Your task to perform on an android device: Install the Facebook app Image 0: 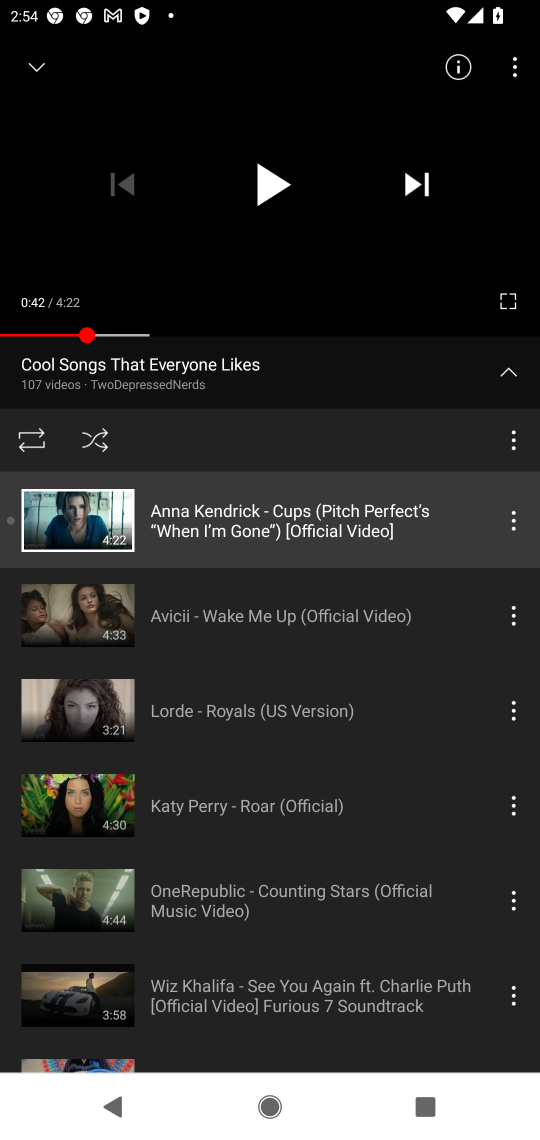
Step 0: press home button
Your task to perform on an android device: Install the Facebook app Image 1: 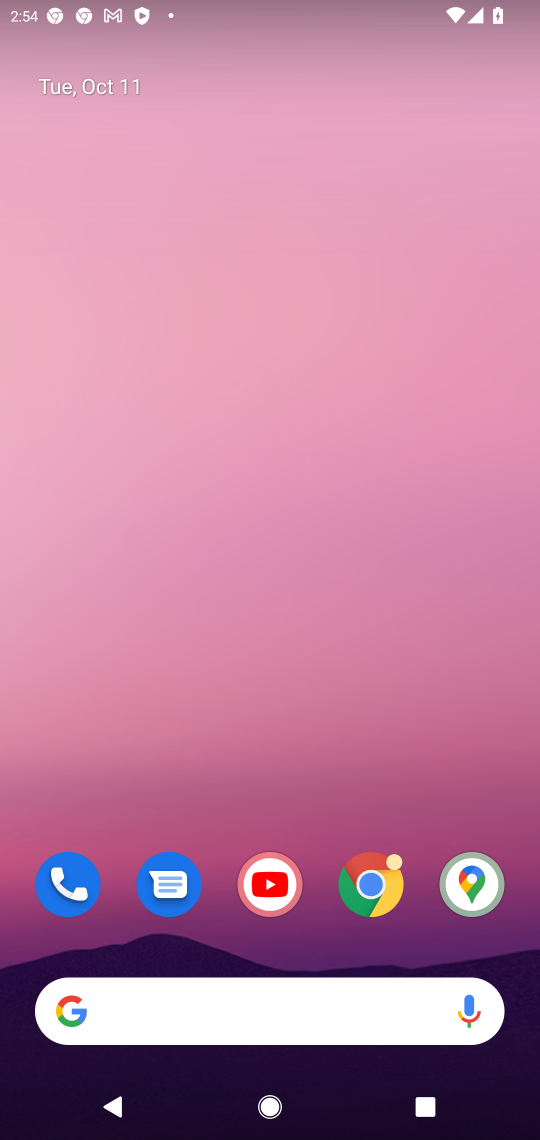
Step 1: drag from (292, 1023) to (390, 333)
Your task to perform on an android device: Install the Facebook app Image 2: 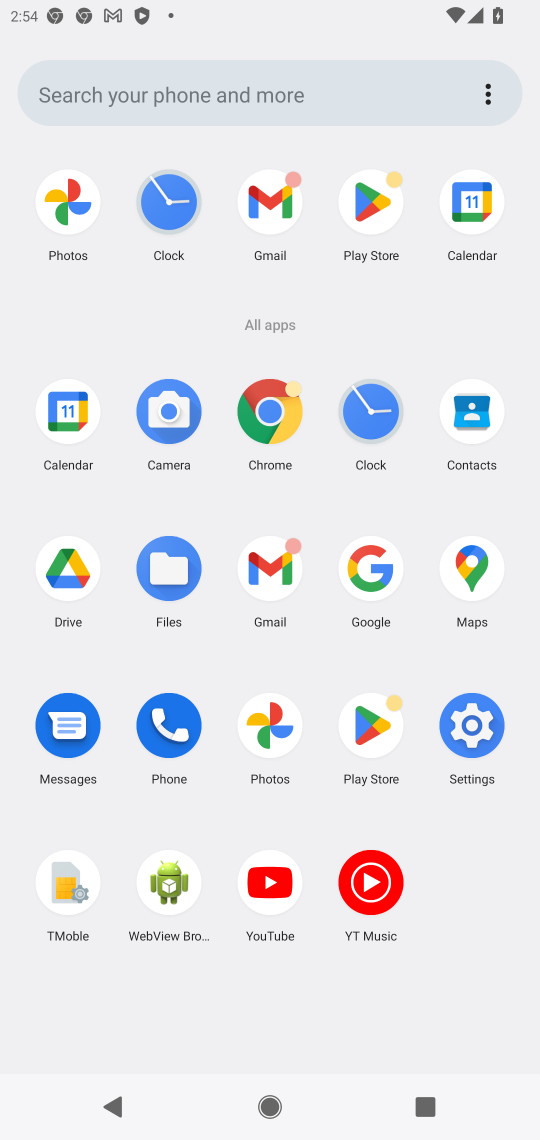
Step 2: click (374, 205)
Your task to perform on an android device: Install the Facebook app Image 3: 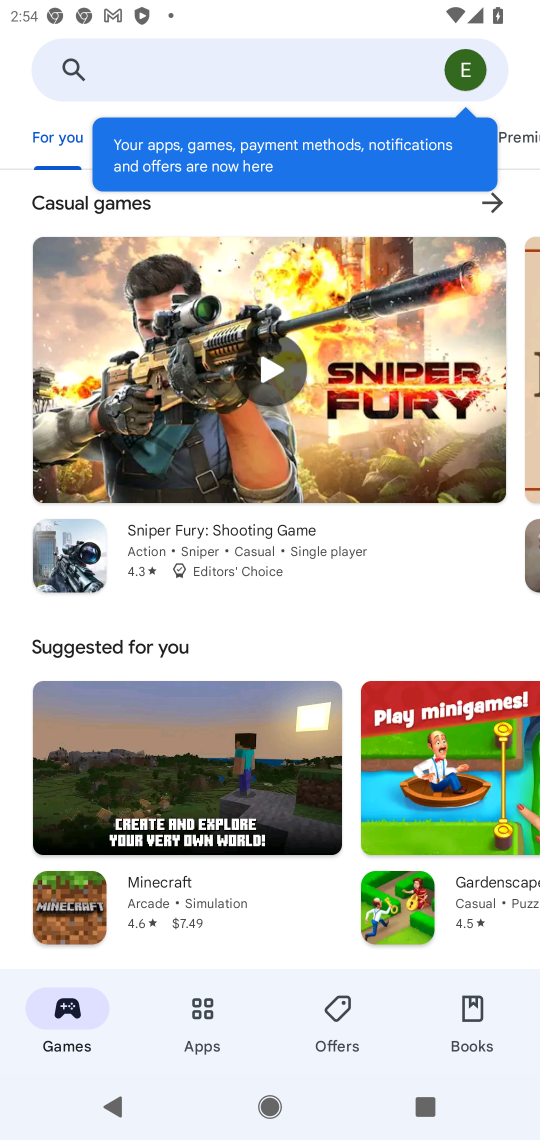
Step 3: click (334, 79)
Your task to perform on an android device: Install the Facebook app Image 4: 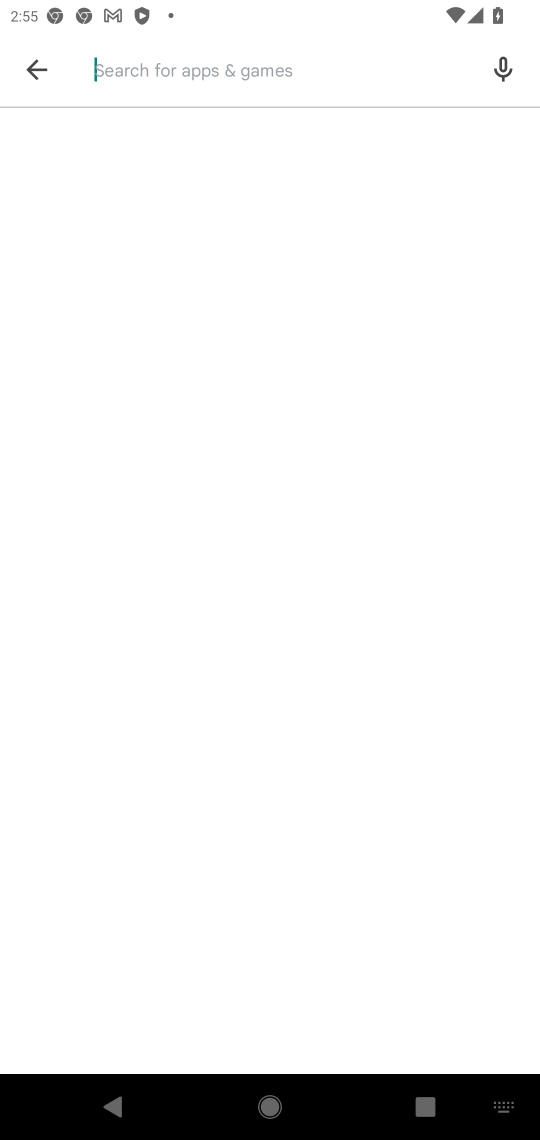
Step 4: type "Facebook app"
Your task to perform on an android device: Install the Facebook app Image 5: 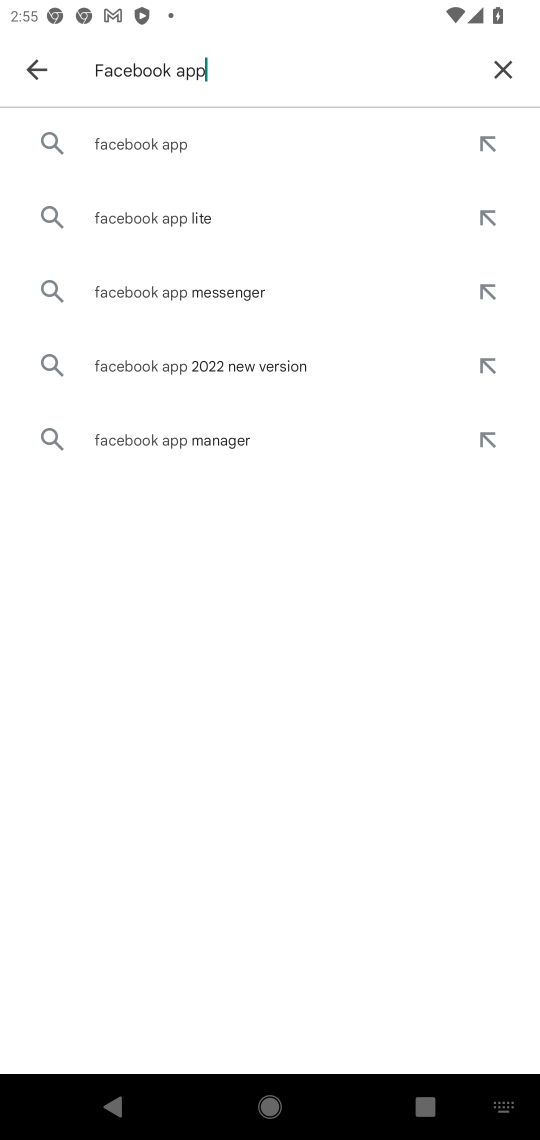
Step 5: click (163, 148)
Your task to perform on an android device: Install the Facebook app Image 6: 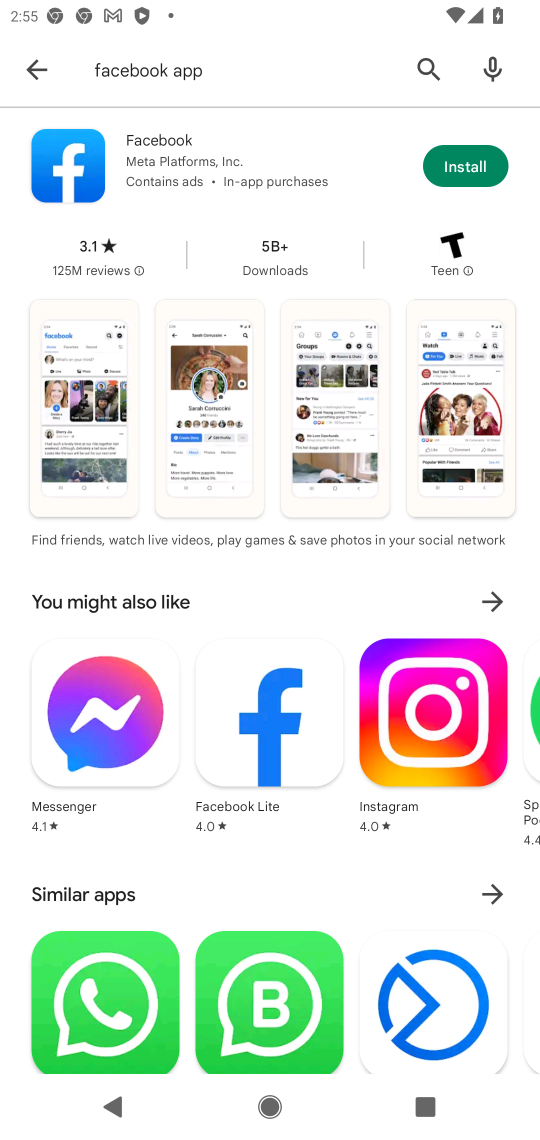
Step 6: click (461, 172)
Your task to perform on an android device: Install the Facebook app Image 7: 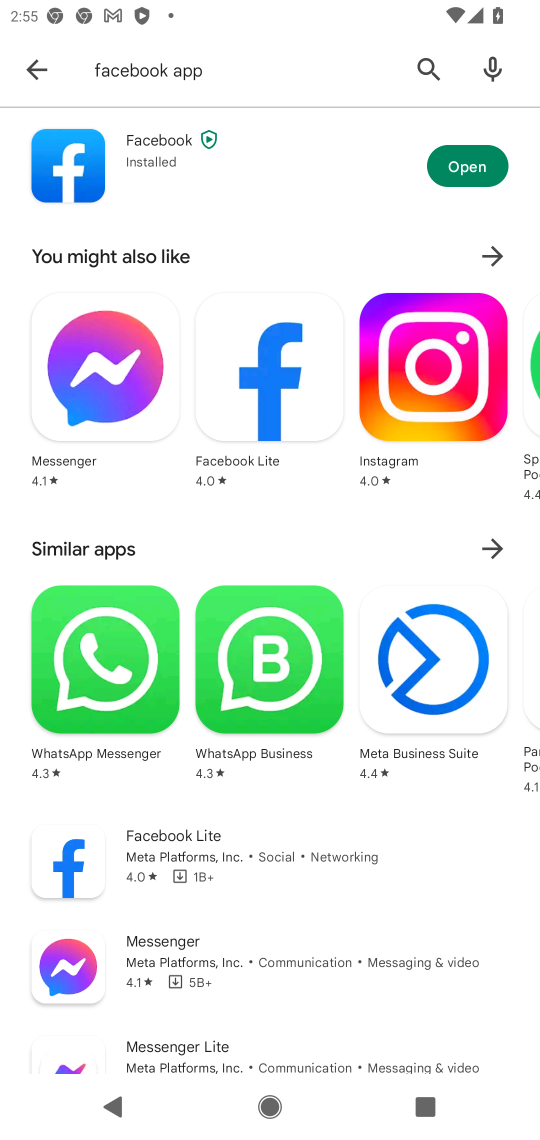
Step 7: task complete